Your task to perform on an android device: Go to Google maps Image 0: 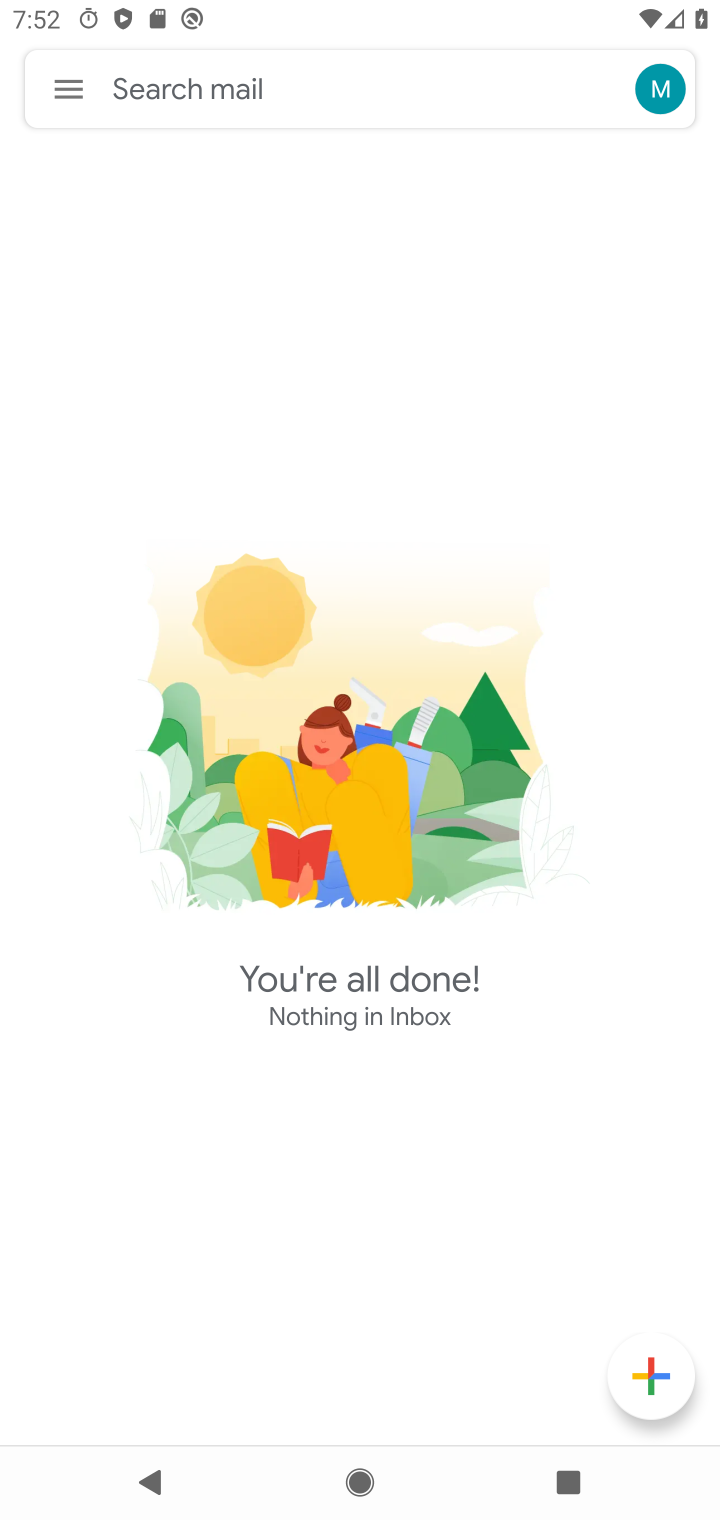
Step 0: click (435, 629)
Your task to perform on an android device: Go to Google maps Image 1: 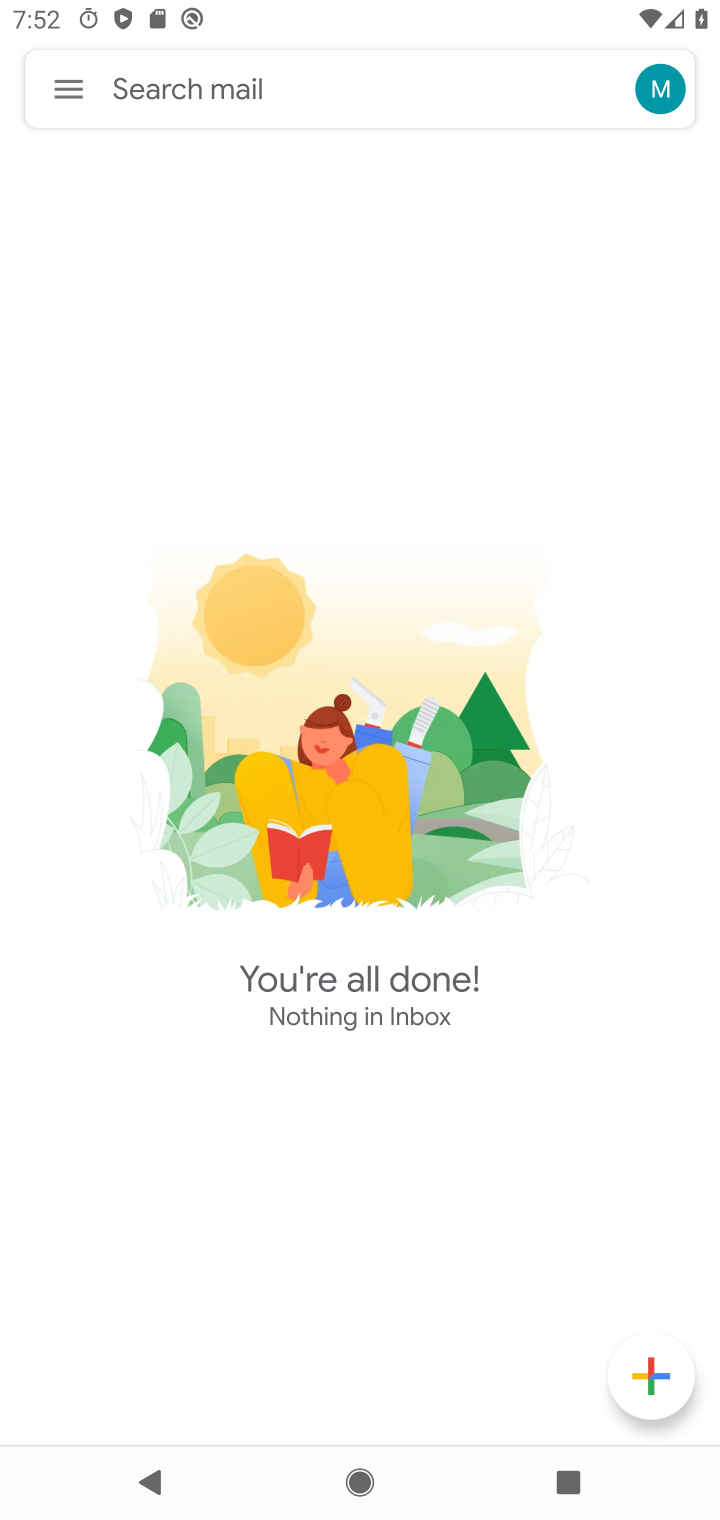
Step 1: press home button
Your task to perform on an android device: Go to Google maps Image 2: 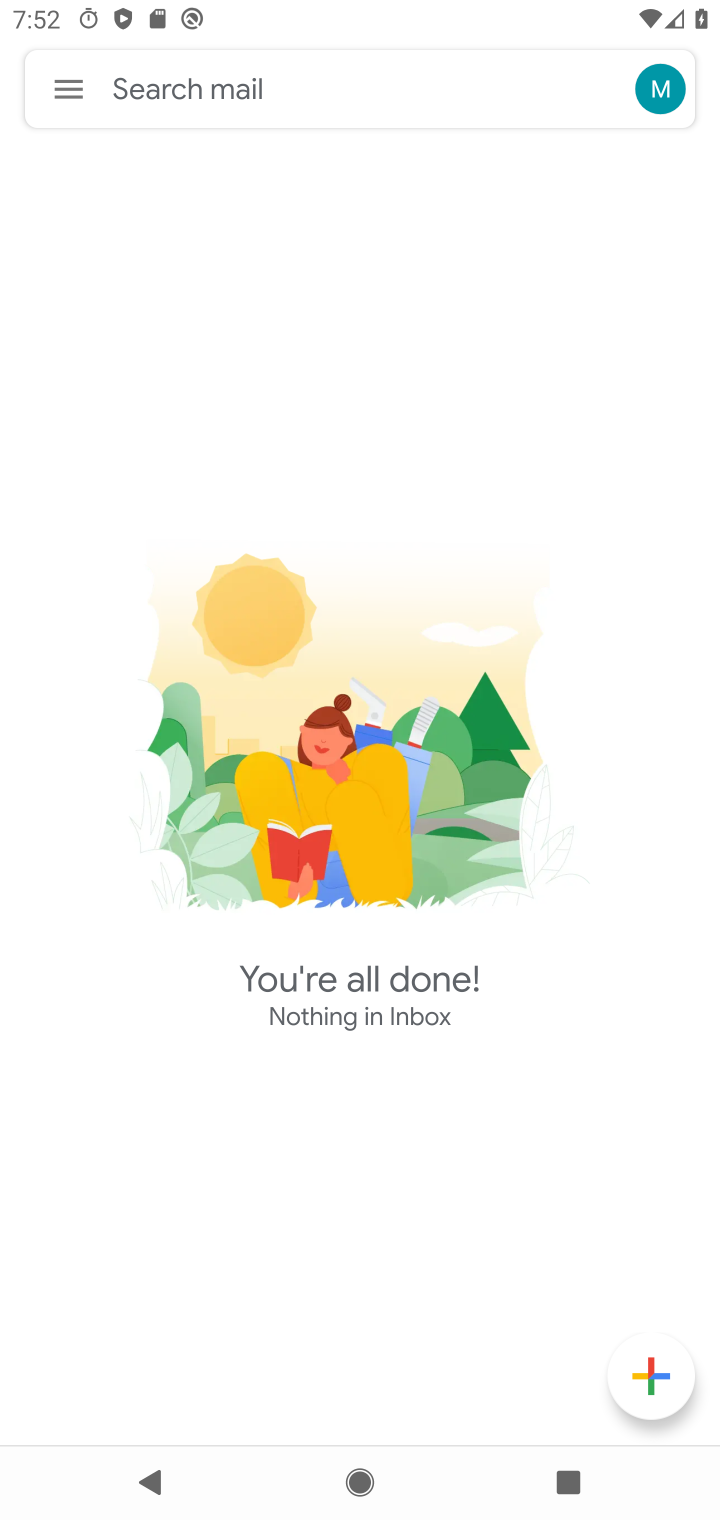
Step 2: drag from (344, 1202) to (458, 214)
Your task to perform on an android device: Go to Google maps Image 3: 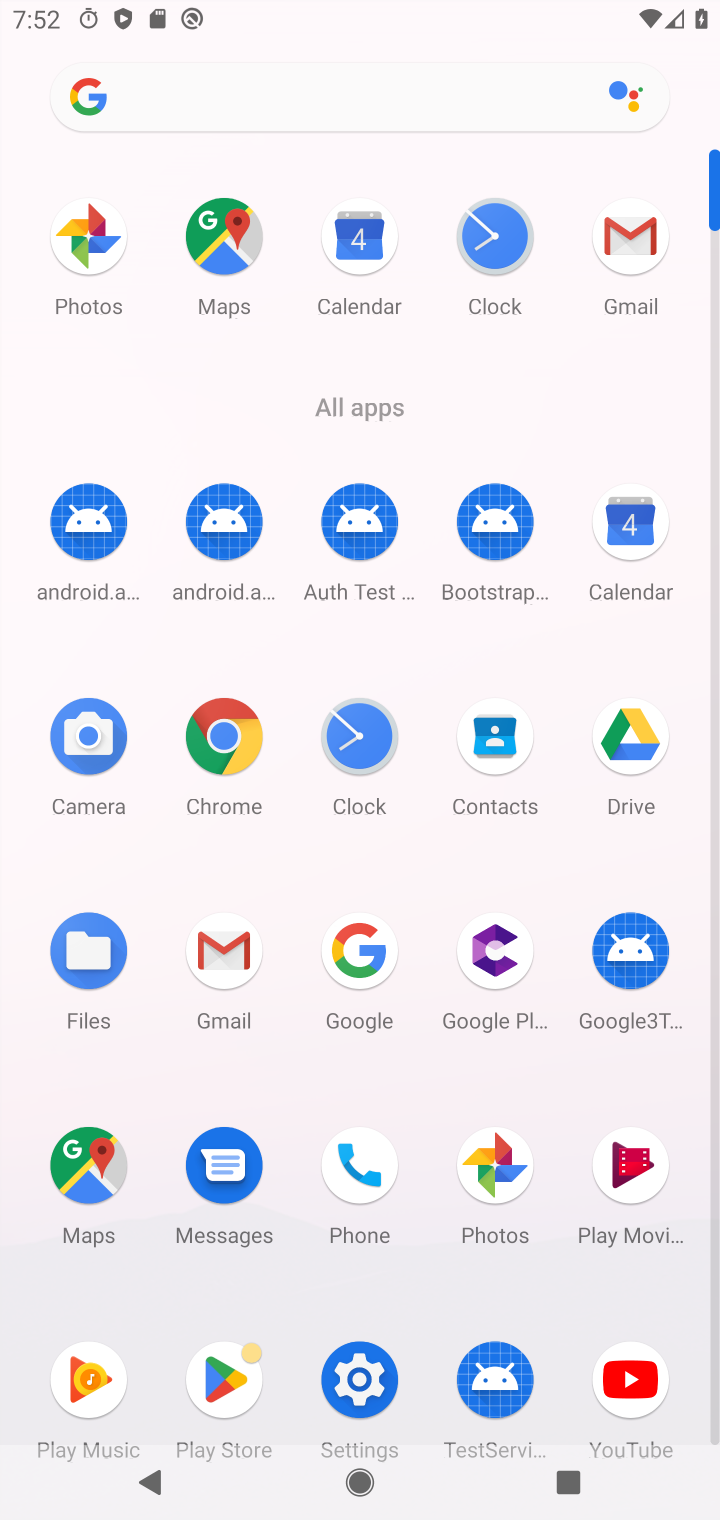
Step 3: click (90, 1178)
Your task to perform on an android device: Go to Google maps Image 4: 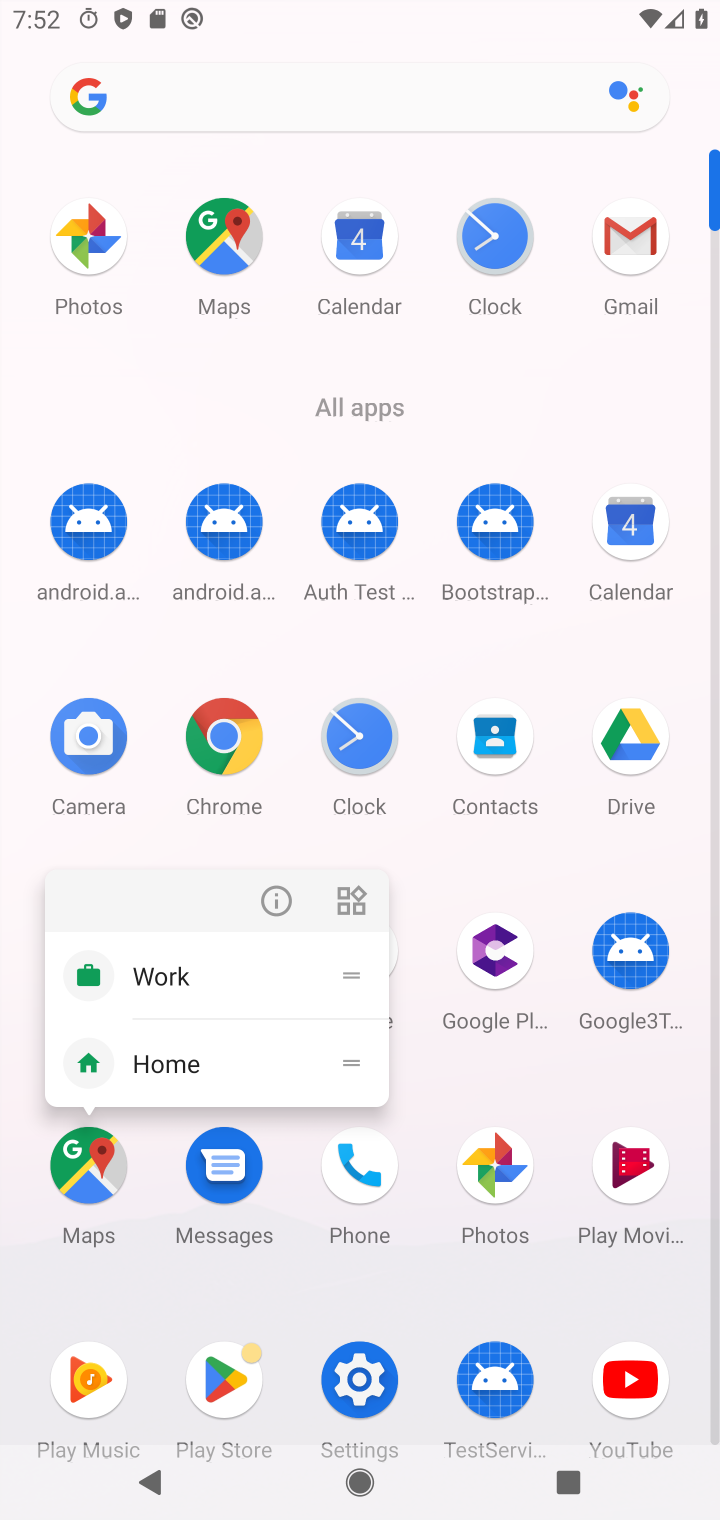
Step 4: click (286, 886)
Your task to perform on an android device: Go to Google maps Image 5: 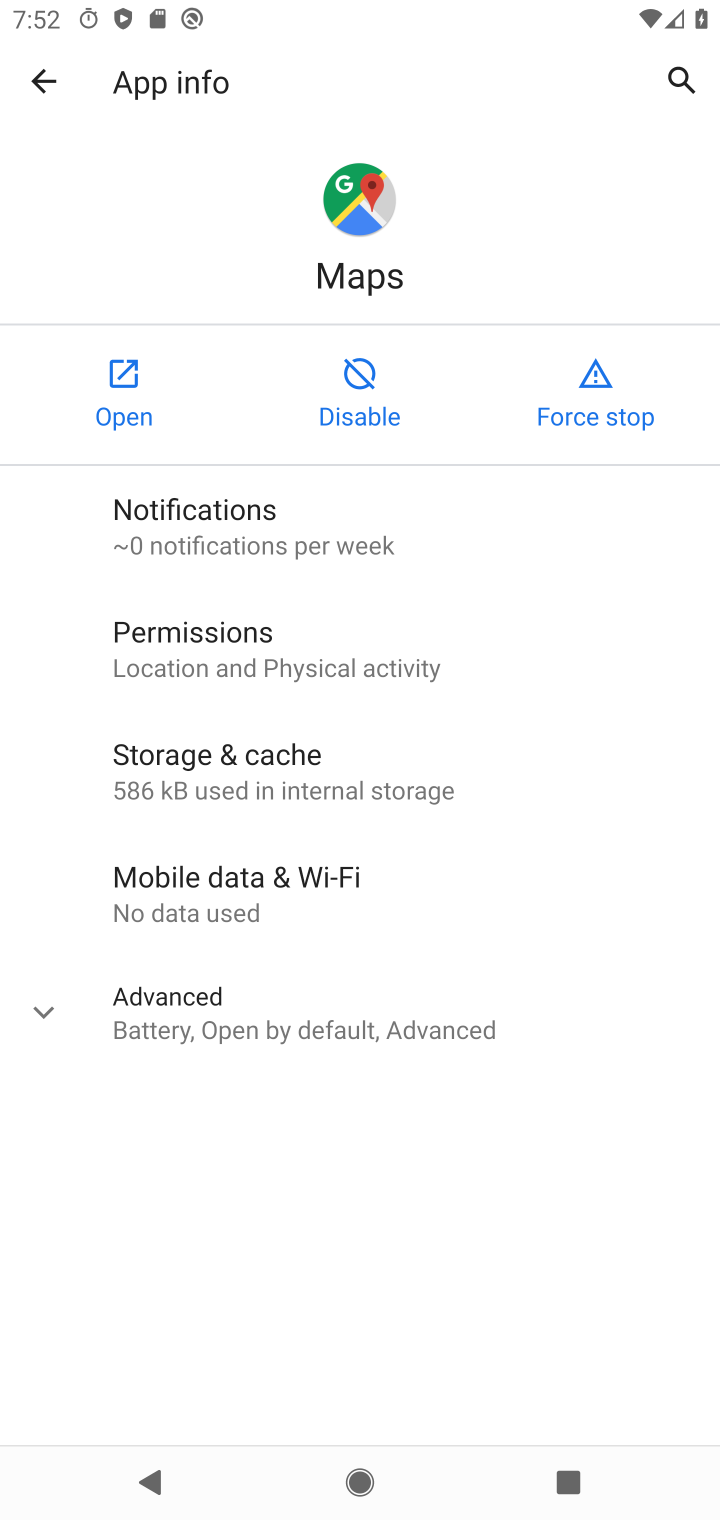
Step 5: click (138, 382)
Your task to perform on an android device: Go to Google maps Image 6: 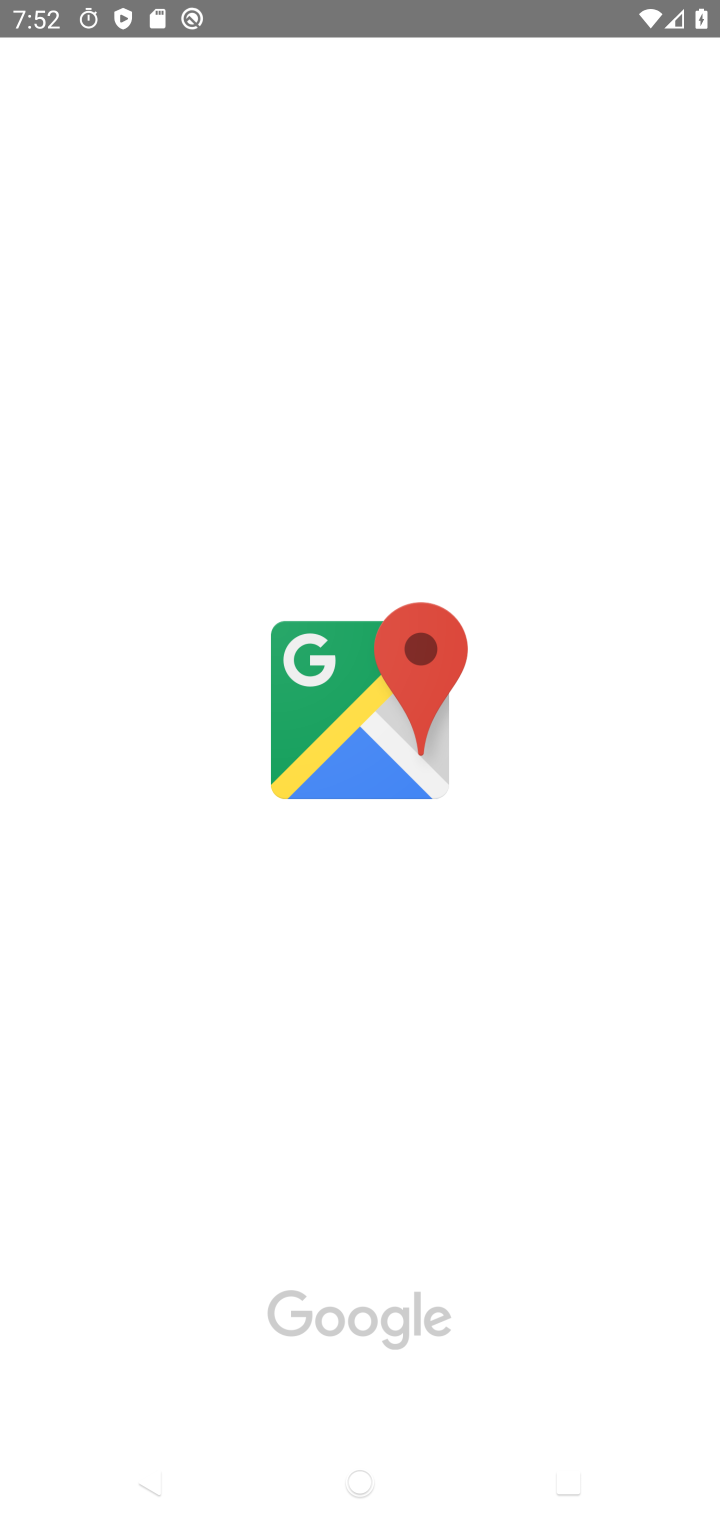
Step 6: click (536, 559)
Your task to perform on an android device: Go to Google maps Image 7: 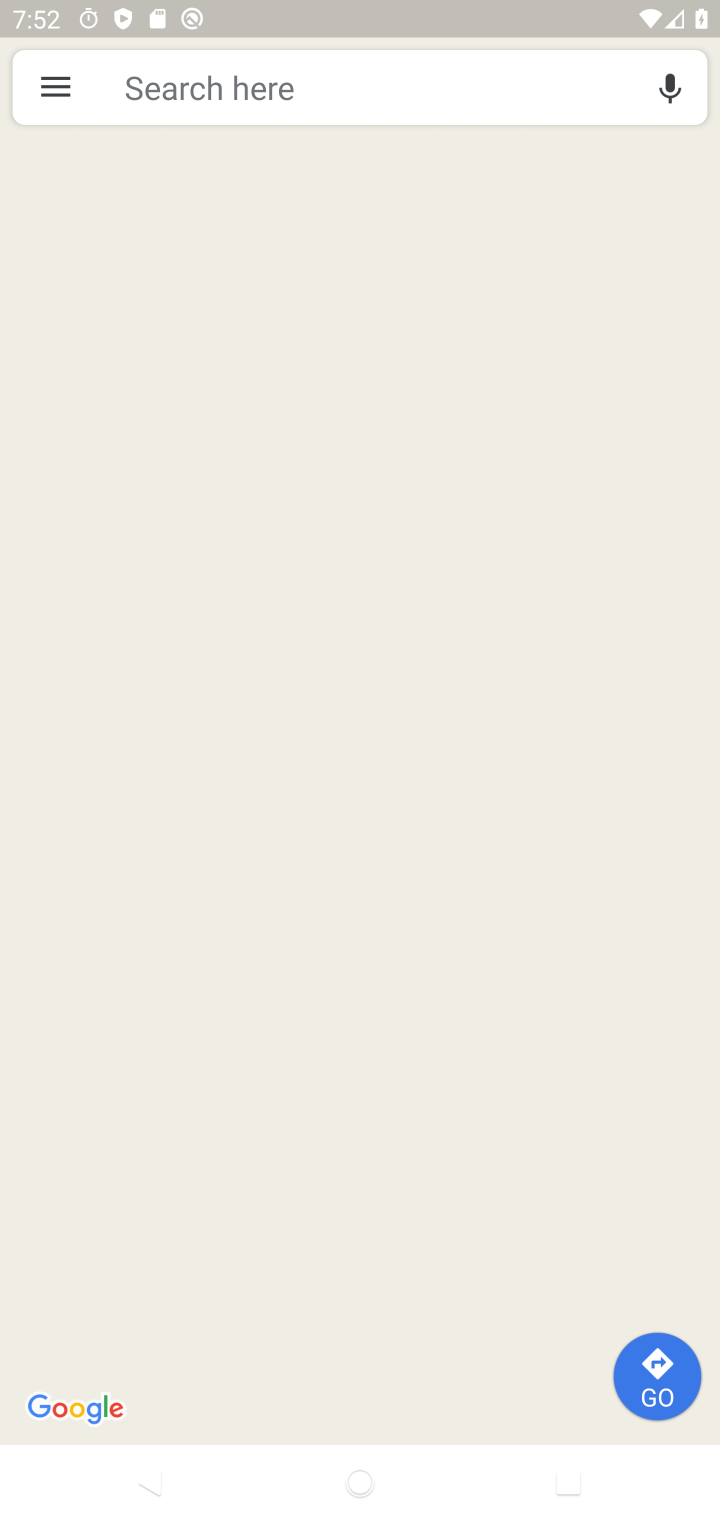
Step 7: task complete